Your task to perform on an android device: toggle show notifications on the lock screen Image 0: 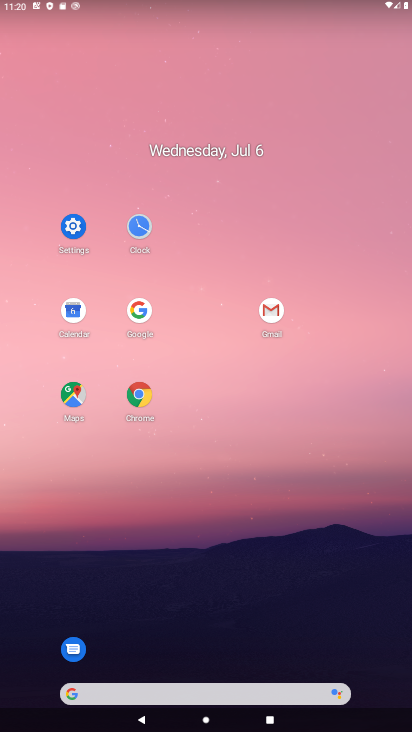
Step 0: click (76, 231)
Your task to perform on an android device: toggle show notifications on the lock screen Image 1: 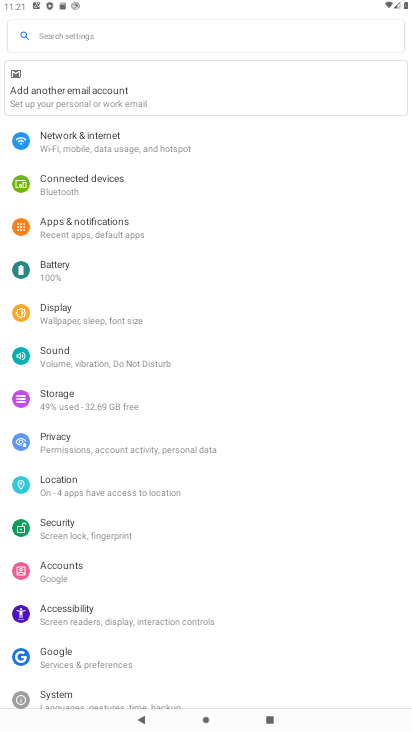
Step 1: drag from (151, 568) to (167, 348)
Your task to perform on an android device: toggle show notifications on the lock screen Image 2: 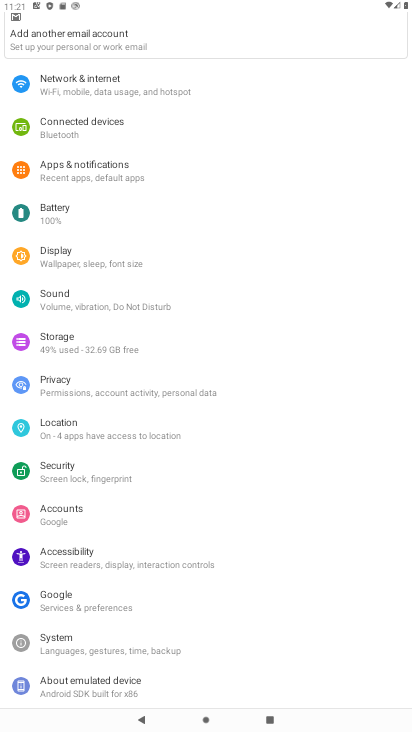
Step 2: click (89, 171)
Your task to perform on an android device: toggle show notifications on the lock screen Image 3: 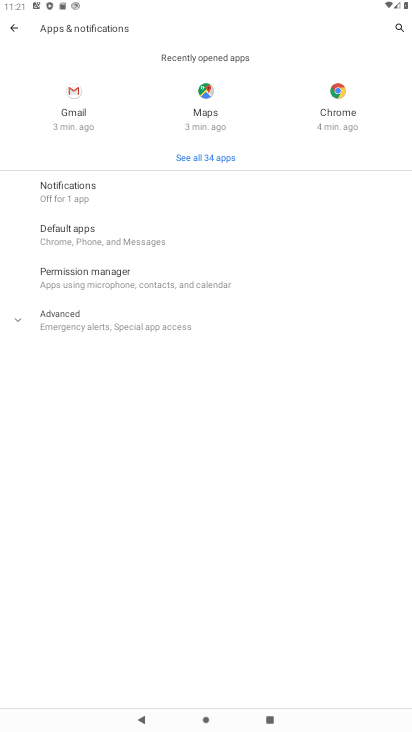
Step 3: click (152, 316)
Your task to perform on an android device: toggle show notifications on the lock screen Image 4: 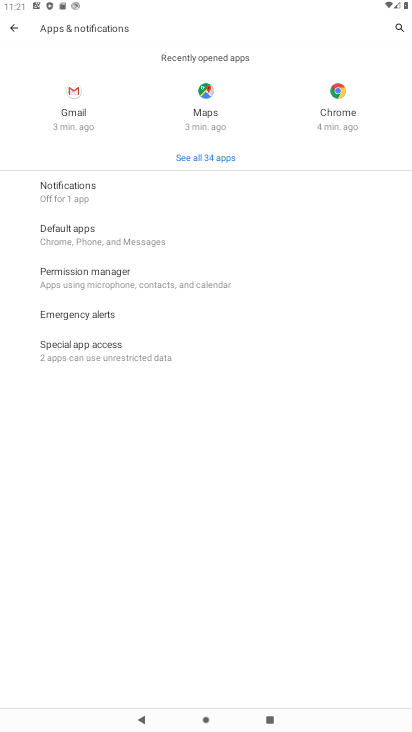
Step 4: click (81, 198)
Your task to perform on an android device: toggle show notifications on the lock screen Image 5: 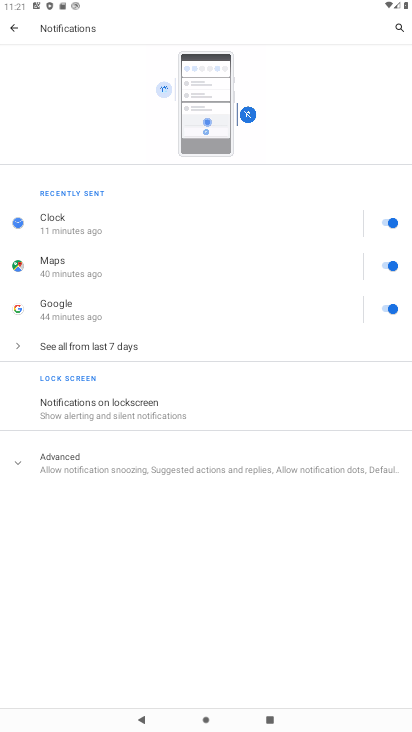
Step 5: click (183, 410)
Your task to perform on an android device: toggle show notifications on the lock screen Image 6: 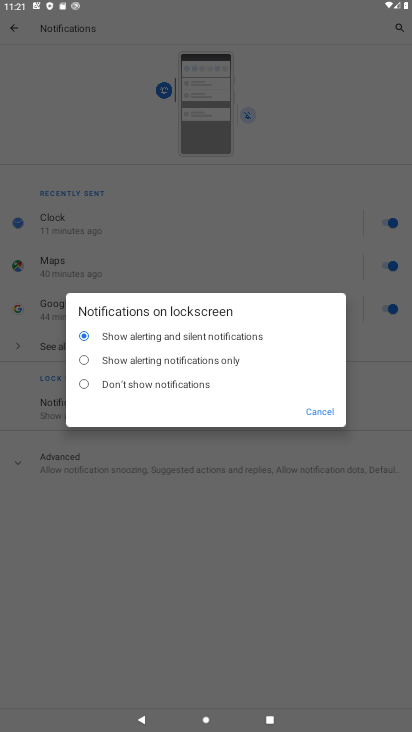
Step 6: click (172, 388)
Your task to perform on an android device: toggle show notifications on the lock screen Image 7: 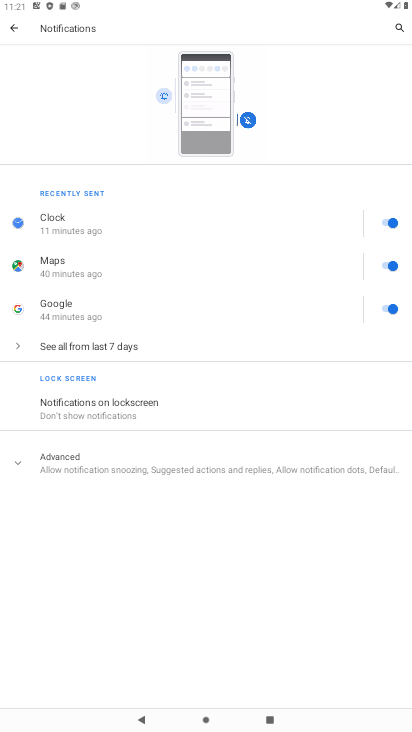
Step 7: task complete